Your task to perform on an android device: add a label to a message in the gmail app Image 0: 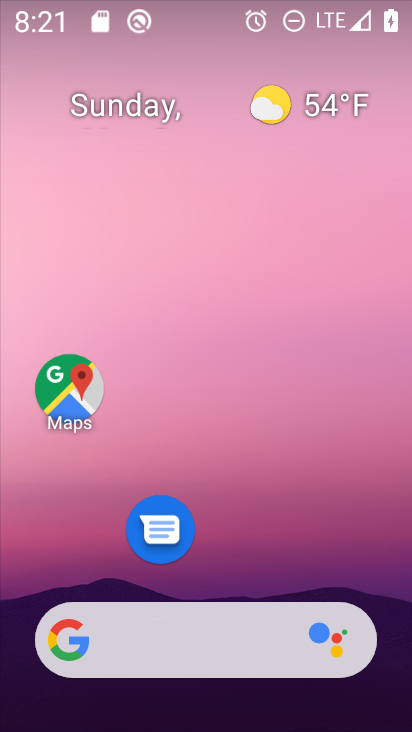
Step 0: drag from (236, 585) to (306, 206)
Your task to perform on an android device: add a label to a message in the gmail app Image 1: 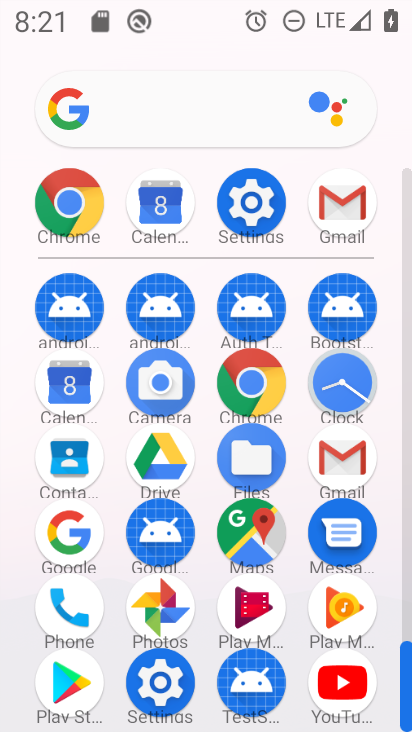
Step 1: click (348, 452)
Your task to perform on an android device: add a label to a message in the gmail app Image 2: 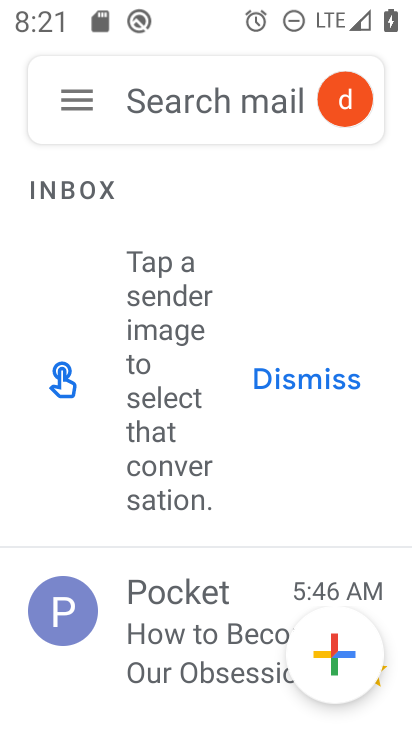
Step 2: drag from (127, 505) to (181, 137)
Your task to perform on an android device: add a label to a message in the gmail app Image 3: 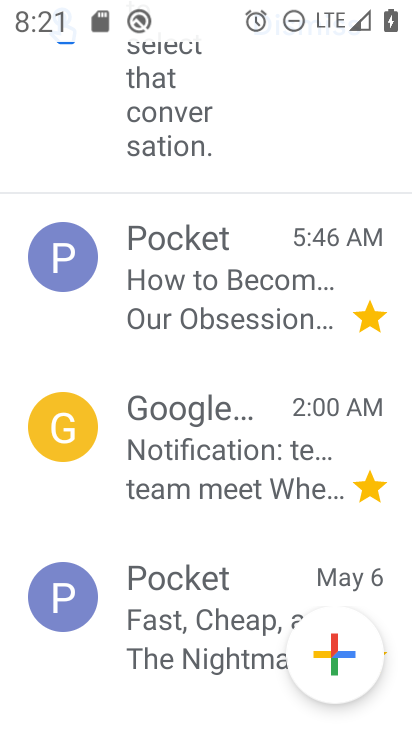
Step 3: click (64, 260)
Your task to perform on an android device: add a label to a message in the gmail app Image 4: 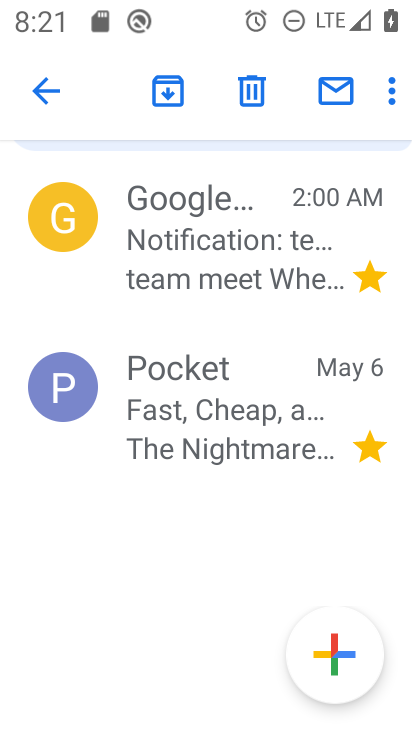
Step 4: click (381, 100)
Your task to perform on an android device: add a label to a message in the gmail app Image 5: 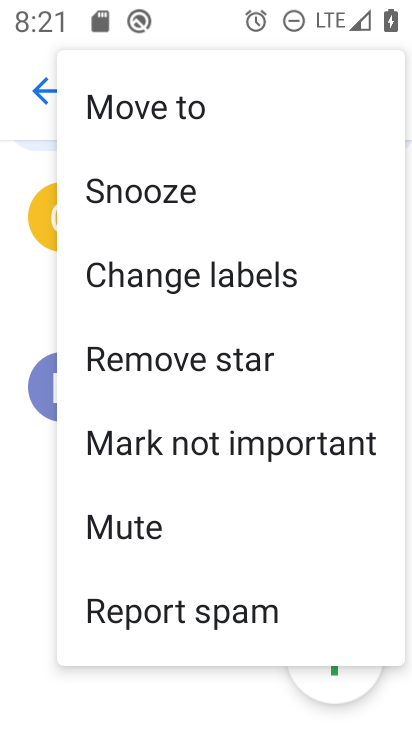
Step 5: click (215, 277)
Your task to perform on an android device: add a label to a message in the gmail app Image 6: 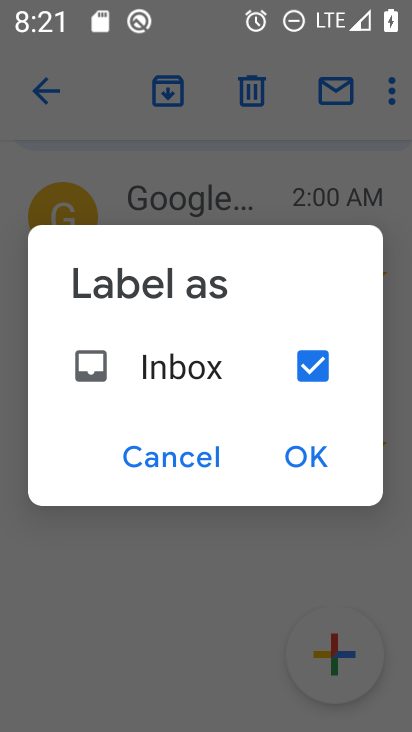
Step 6: click (303, 360)
Your task to perform on an android device: add a label to a message in the gmail app Image 7: 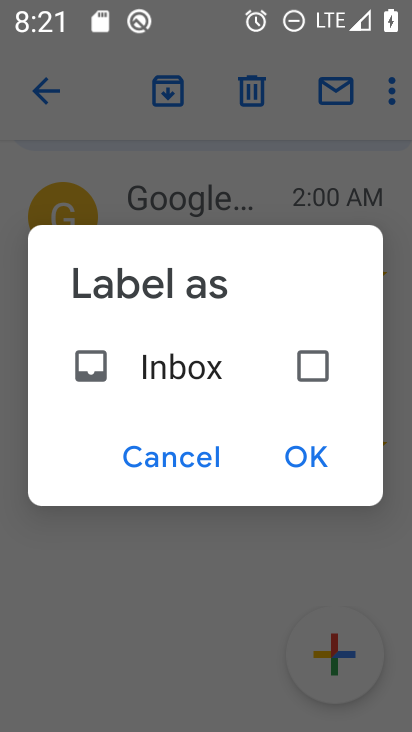
Step 7: click (288, 457)
Your task to perform on an android device: add a label to a message in the gmail app Image 8: 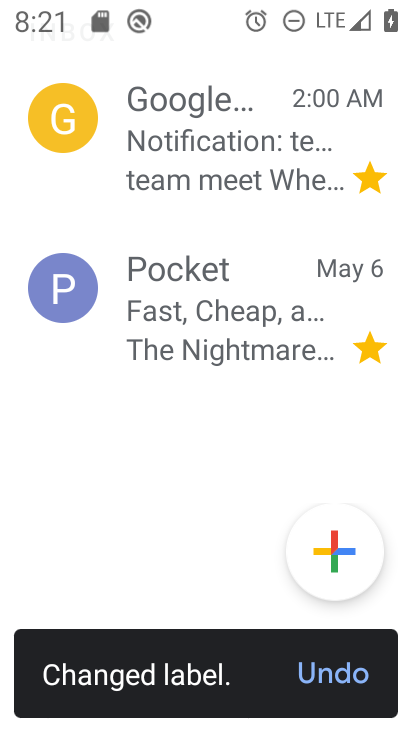
Step 8: task complete